Your task to perform on an android device: Search for the best rated wireless headphones on Amazon. Image 0: 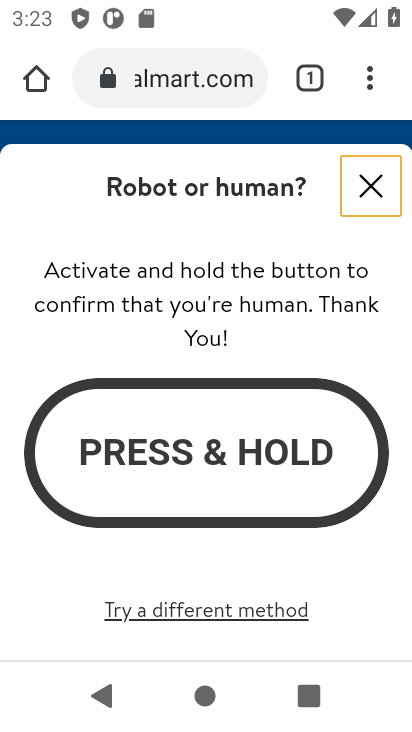
Step 0: click (364, 188)
Your task to perform on an android device: Search for the best rated wireless headphones on Amazon. Image 1: 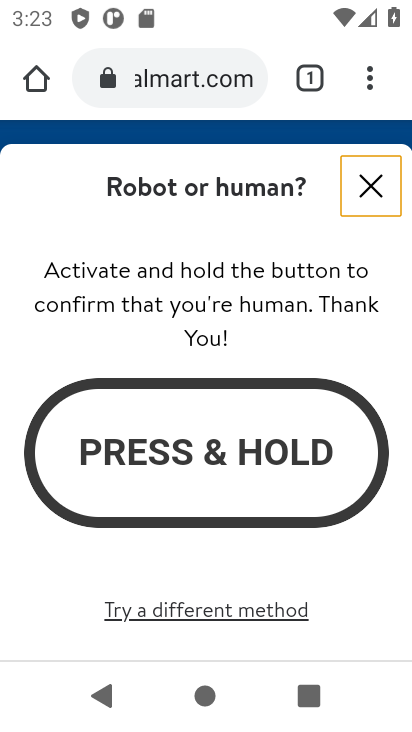
Step 1: click (363, 188)
Your task to perform on an android device: Search for the best rated wireless headphones on Amazon. Image 2: 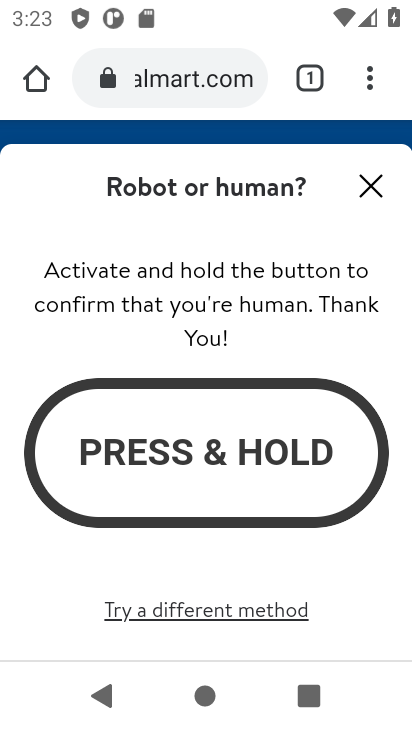
Step 2: task complete